Your task to perform on an android device: star an email in the gmail app Image 0: 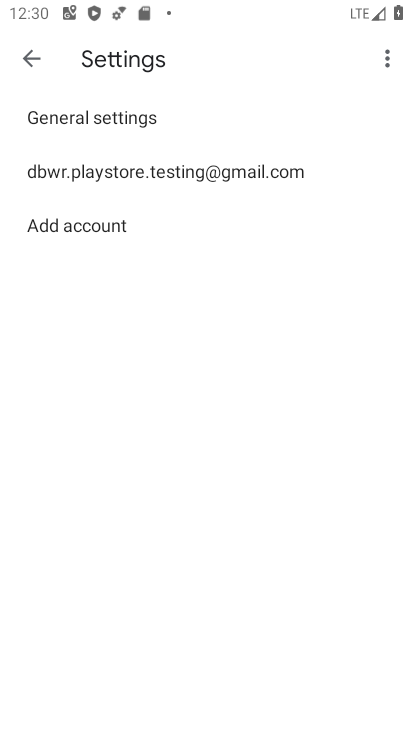
Step 0: press home button
Your task to perform on an android device: star an email in the gmail app Image 1: 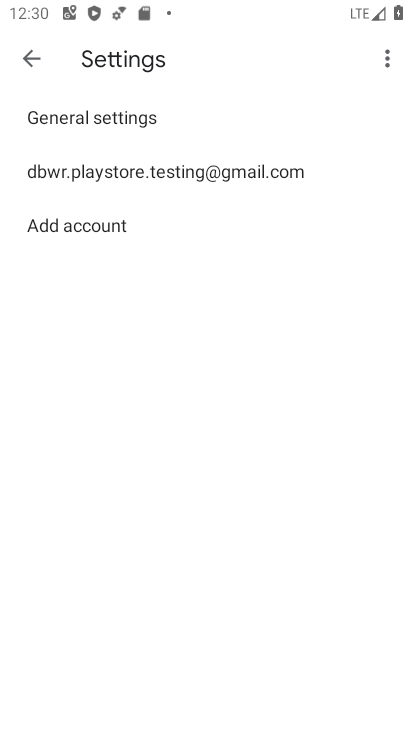
Step 1: press home button
Your task to perform on an android device: star an email in the gmail app Image 2: 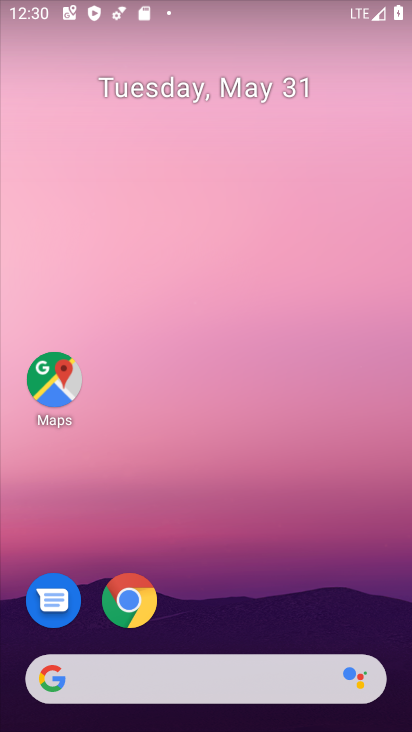
Step 2: drag from (210, 723) to (213, 666)
Your task to perform on an android device: star an email in the gmail app Image 3: 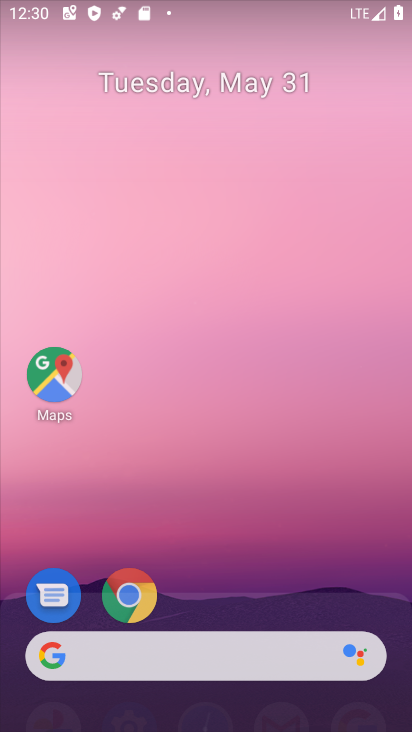
Step 3: drag from (200, 302) to (185, 97)
Your task to perform on an android device: star an email in the gmail app Image 4: 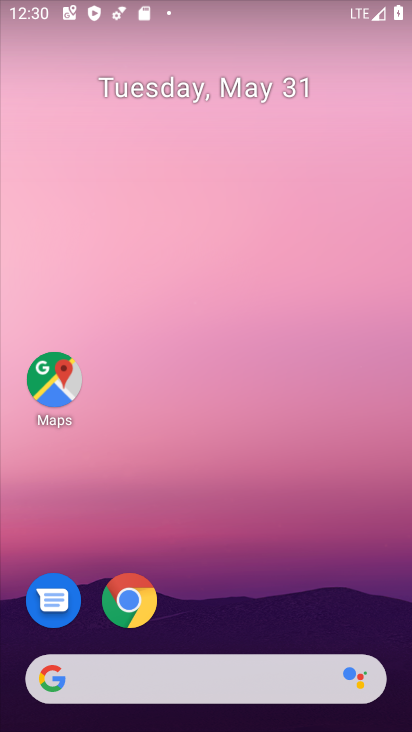
Step 4: drag from (236, 726) to (237, 8)
Your task to perform on an android device: star an email in the gmail app Image 5: 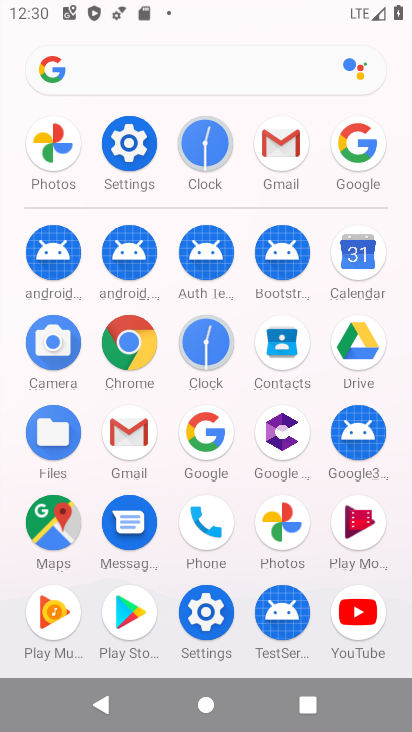
Step 5: click (131, 432)
Your task to perform on an android device: star an email in the gmail app Image 6: 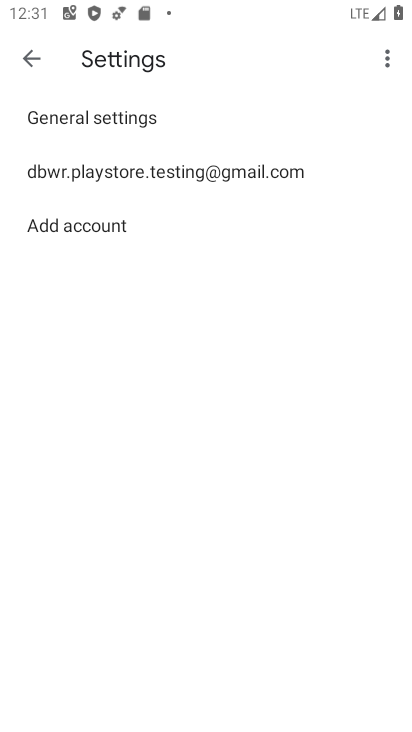
Step 6: click (37, 56)
Your task to perform on an android device: star an email in the gmail app Image 7: 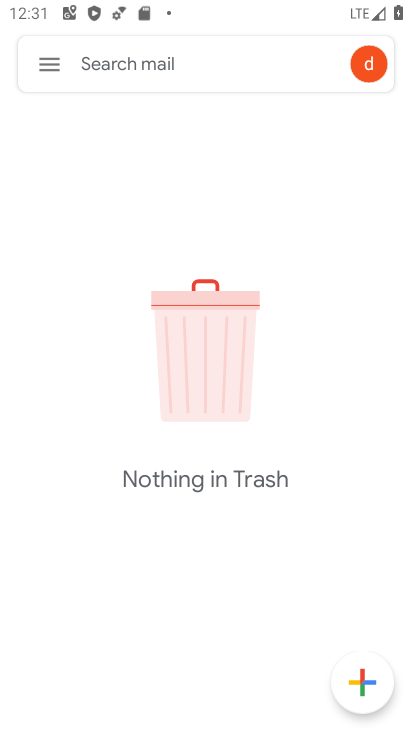
Step 7: click (44, 66)
Your task to perform on an android device: star an email in the gmail app Image 8: 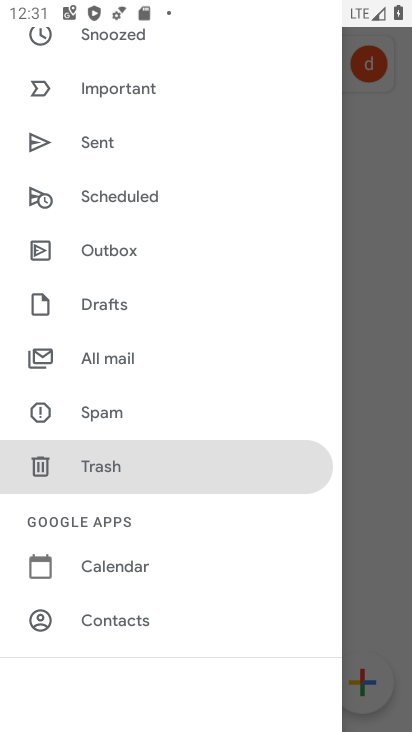
Step 8: click (108, 465)
Your task to perform on an android device: star an email in the gmail app Image 9: 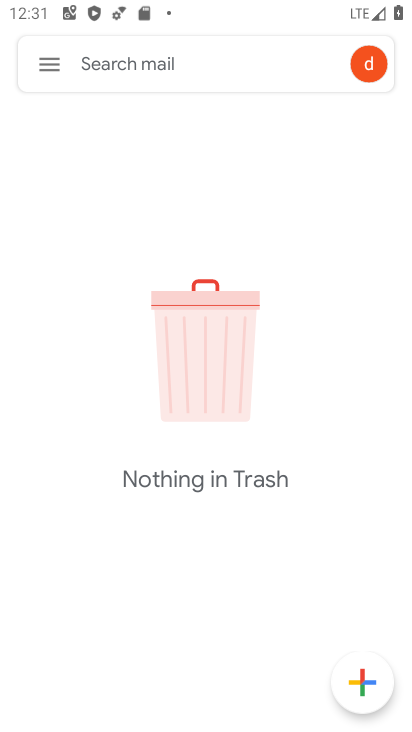
Step 9: click (46, 61)
Your task to perform on an android device: star an email in the gmail app Image 10: 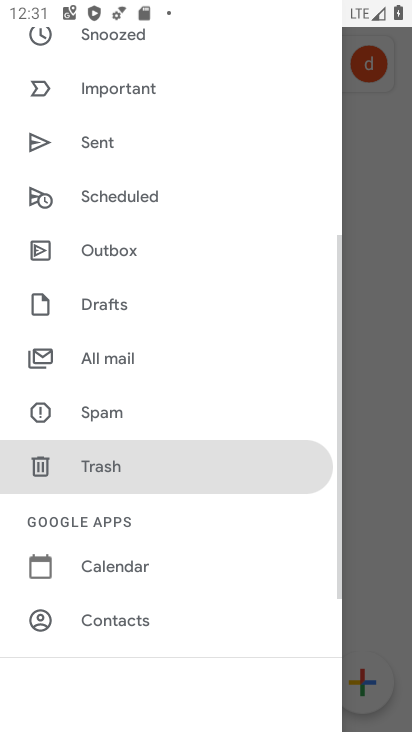
Step 10: drag from (214, 103) to (214, 601)
Your task to perform on an android device: star an email in the gmail app Image 11: 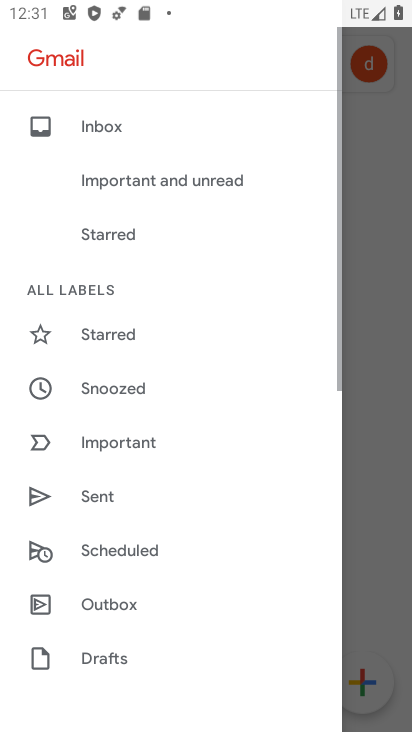
Step 11: click (112, 129)
Your task to perform on an android device: star an email in the gmail app Image 12: 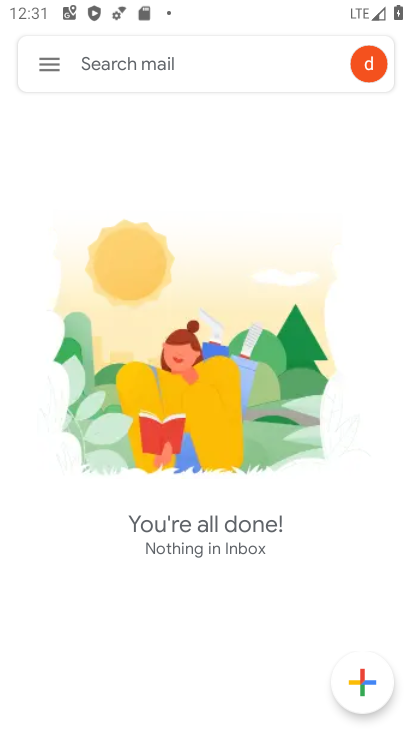
Step 12: task complete